Your task to perform on an android device: Open internet settings Image 0: 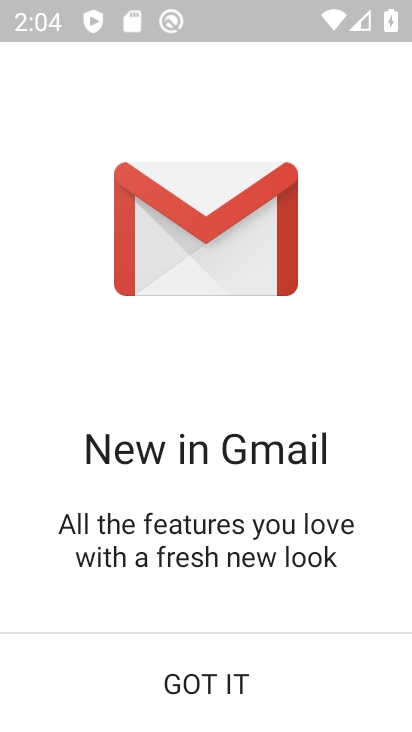
Step 0: press home button
Your task to perform on an android device: Open internet settings Image 1: 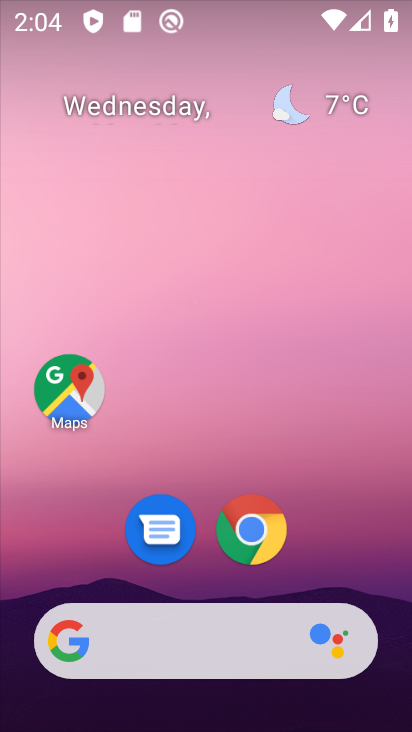
Step 1: drag from (365, 559) to (285, 142)
Your task to perform on an android device: Open internet settings Image 2: 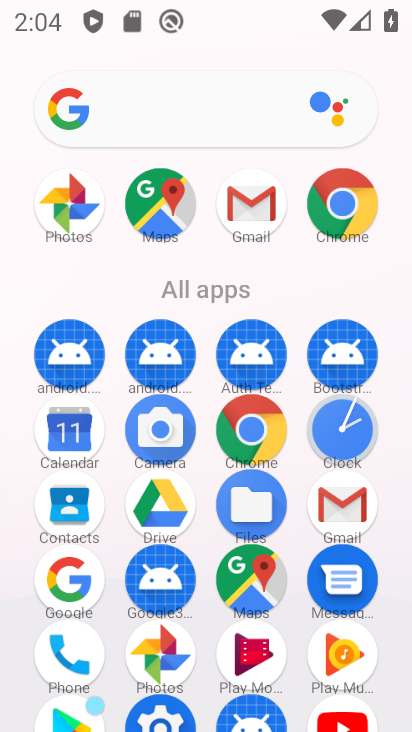
Step 2: drag from (400, 532) to (327, 136)
Your task to perform on an android device: Open internet settings Image 3: 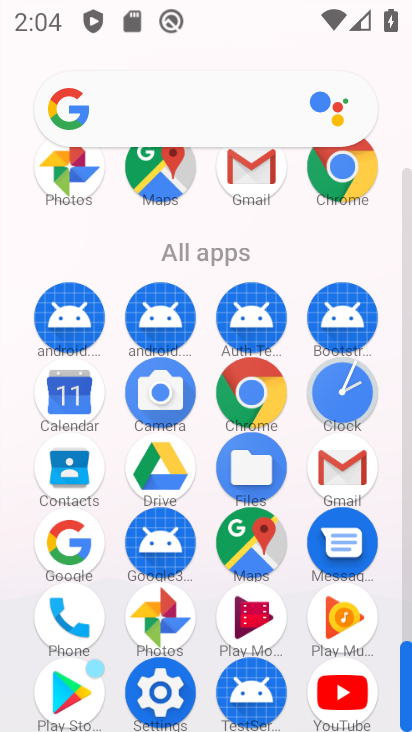
Step 3: click (181, 685)
Your task to perform on an android device: Open internet settings Image 4: 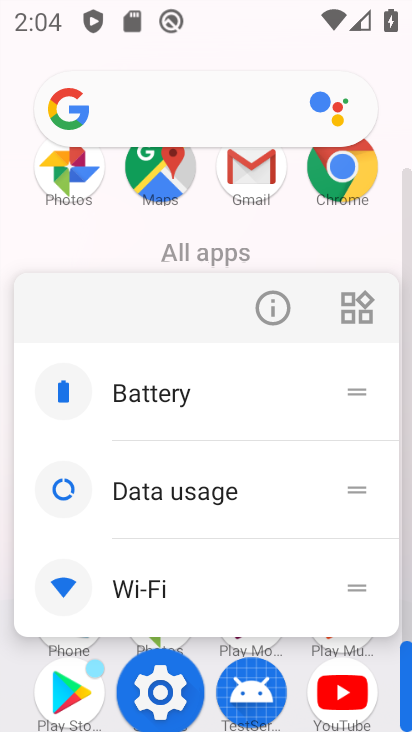
Step 4: click (176, 684)
Your task to perform on an android device: Open internet settings Image 5: 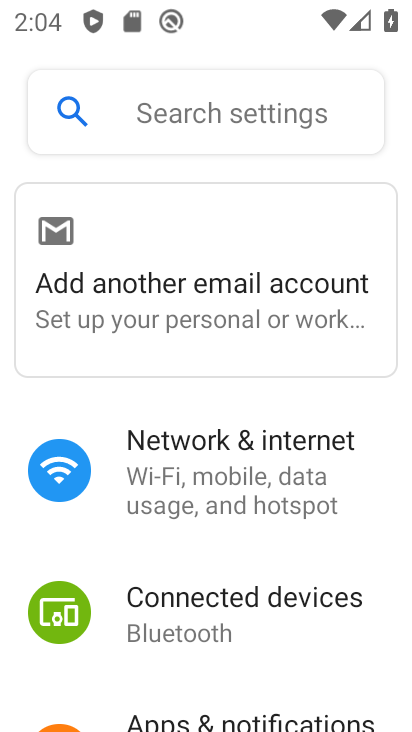
Step 5: click (148, 474)
Your task to perform on an android device: Open internet settings Image 6: 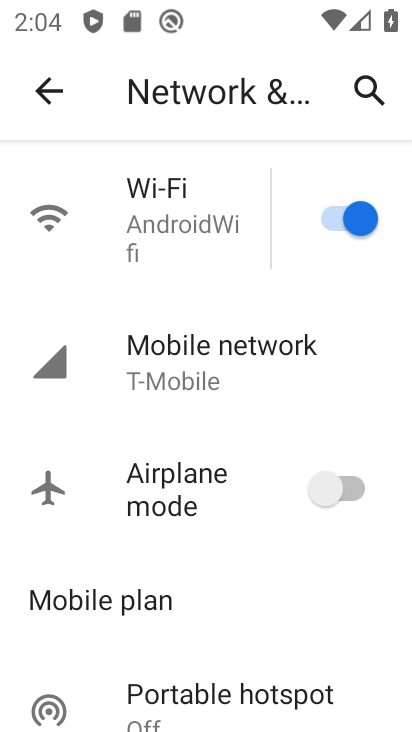
Step 6: click (200, 323)
Your task to perform on an android device: Open internet settings Image 7: 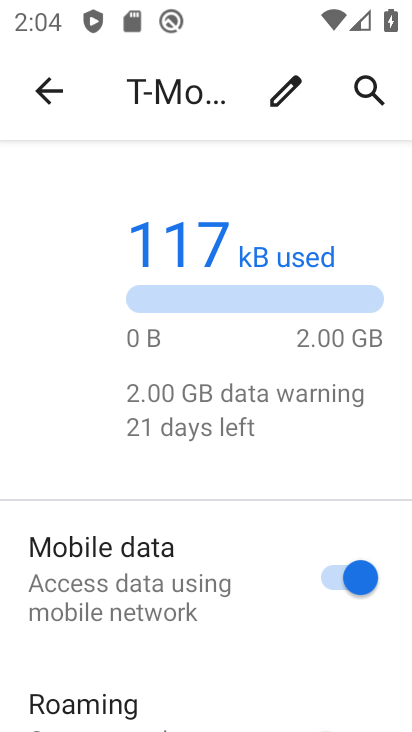
Step 7: click (196, 314)
Your task to perform on an android device: Open internet settings Image 8: 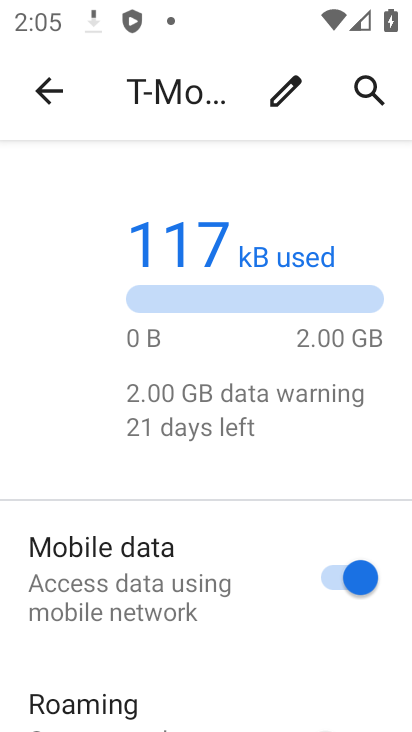
Step 8: task complete